Your task to perform on an android device: Search for hotels in Chicago Image 0: 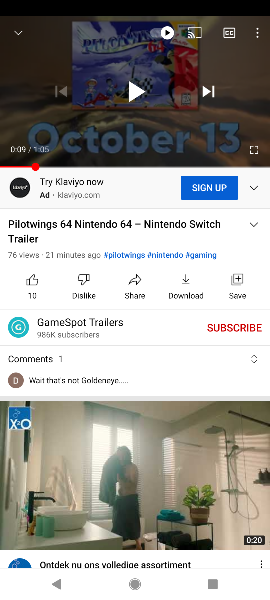
Step 0: click (145, 583)
Your task to perform on an android device: Search for hotels in Chicago Image 1: 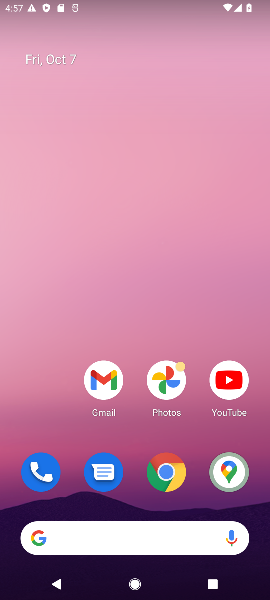
Step 1: click (175, 483)
Your task to perform on an android device: Search for hotels in Chicago Image 2: 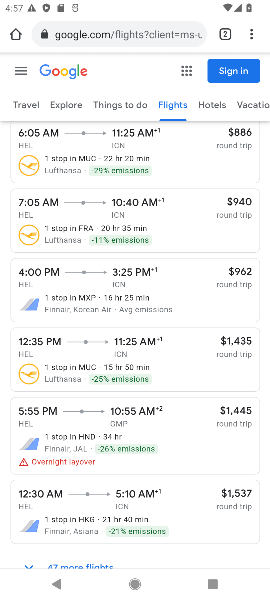
Step 2: click (132, 33)
Your task to perform on an android device: Search for hotels in Chicago Image 3: 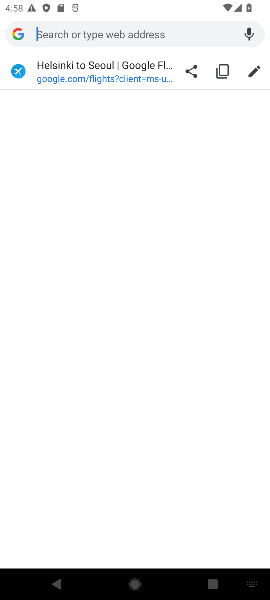
Step 3: type "hotels in Chicago"
Your task to perform on an android device: Search for hotels in Chicago Image 4: 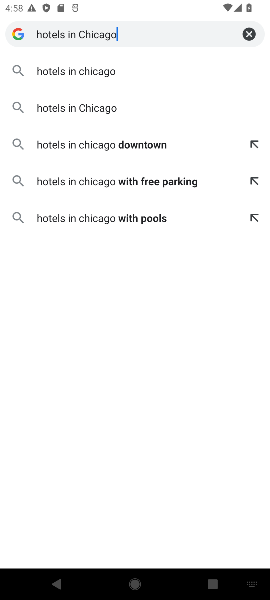
Step 4: click (78, 73)
Your task to perform on an android device: Search for hotels in Chicago Image 5: 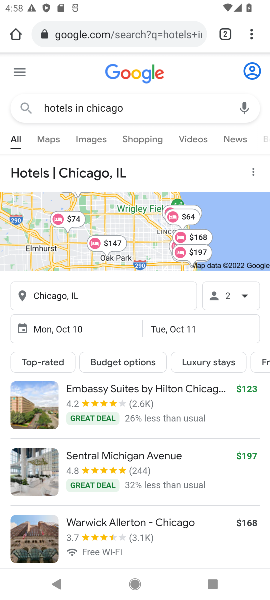
Step 5: drag from (200, 471) to (205, 243)
Your task to perform on an android device: Search for hotels in Chicago Image 6: 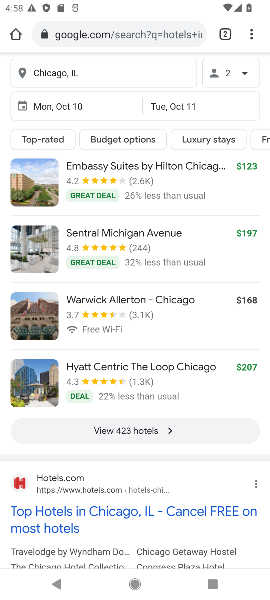
Step 6: click (130, 428)
Your task to perform on an android device: Search for hotels in Chicago Image 7: 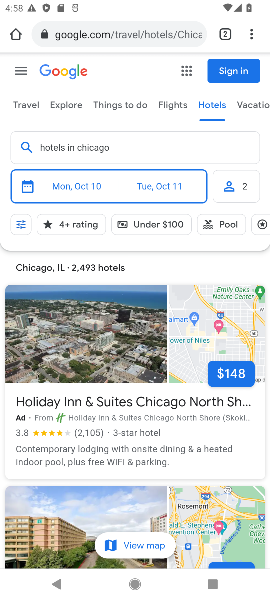
Step 7: drag from (244, 443) to (226, 235)
Your task to perform on an android device: Search for hotels in Chicago Image 8: 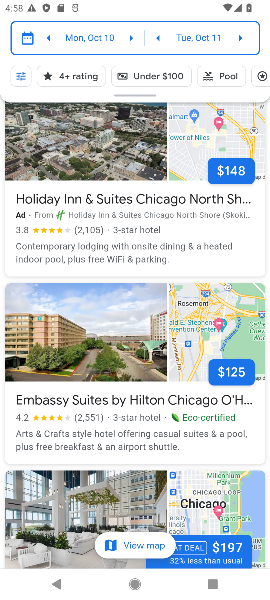
Step 8: drag from (214, 449) to (199, 224)
Your task to perform on an android device: Search for hotels in Chicago Image 9: 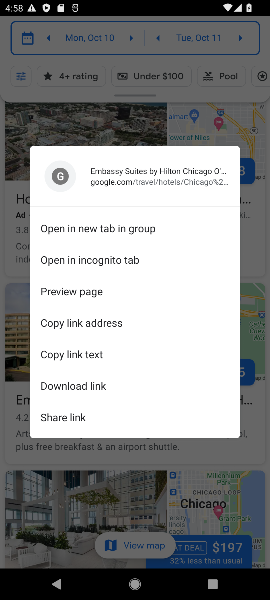
Step 9: click (257, 275)
Your task to perform on an android device: Search for hotels in Chicago Image 10: 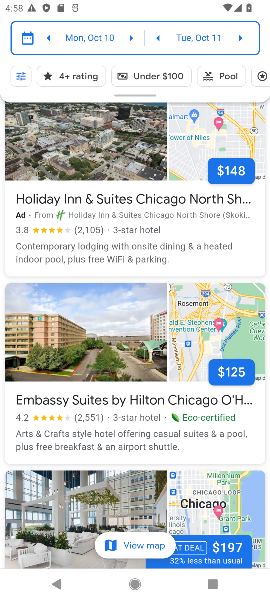
Step 10: task complete